Your task to perform on an android device: create a new album in the google photos Image 0: 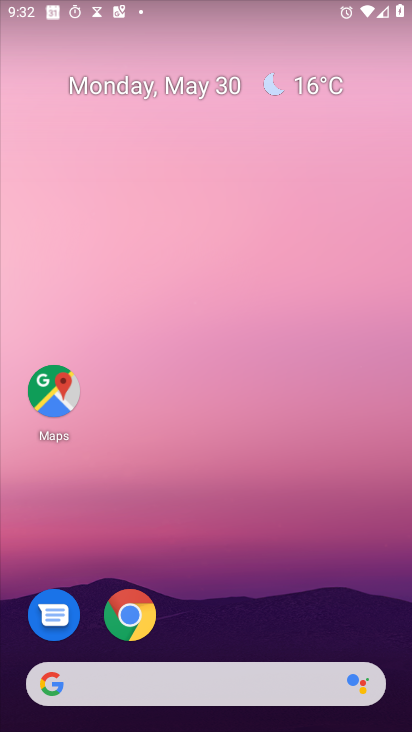
Step 0: drag from (295, 552) to (320, 28)
Your task to perform on an android device: create a new album in the google photos Image 1: 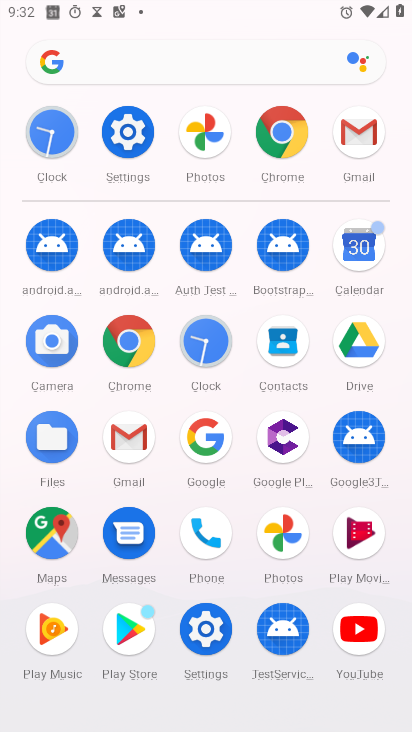
Step 1: click (209, 137)
Your task to perform on an android device: create a new album in the google photos Image 2: 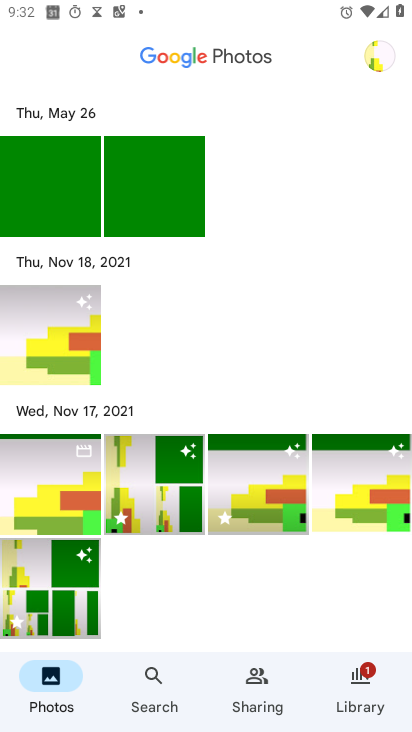
Step 2: task complete